Your task to perform on an android device: clear history in the chrome app Image 0: 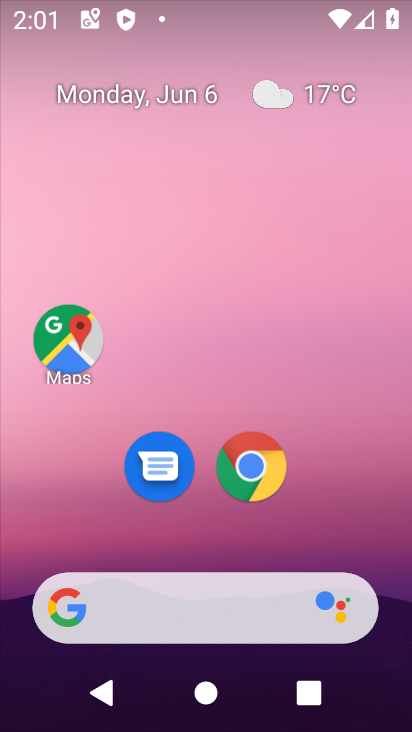
Step 0: click (243, 480)
Your task to perform on an android device: clear history in the chrome app Image 1: 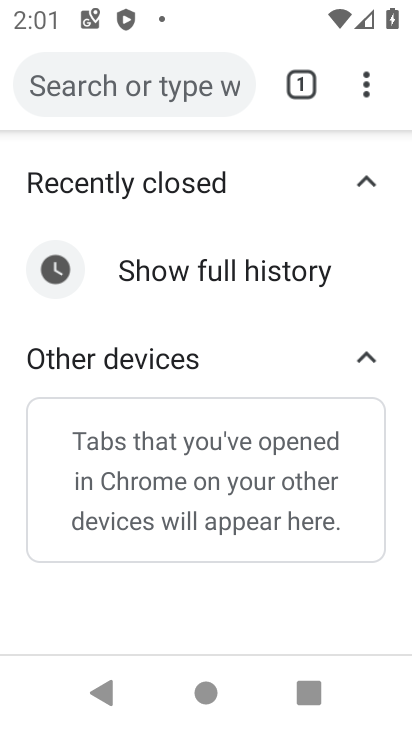
Step 1: task complete